Your task to perform on an android device: turn on notifications settings in the gmail app Image 0: 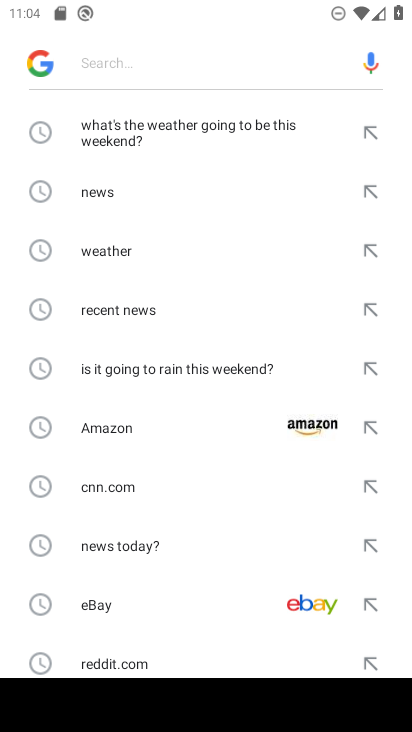
Step 0: press home button
Your task to perform on an android device: turn on notifications settings in the gmail app Image 1: 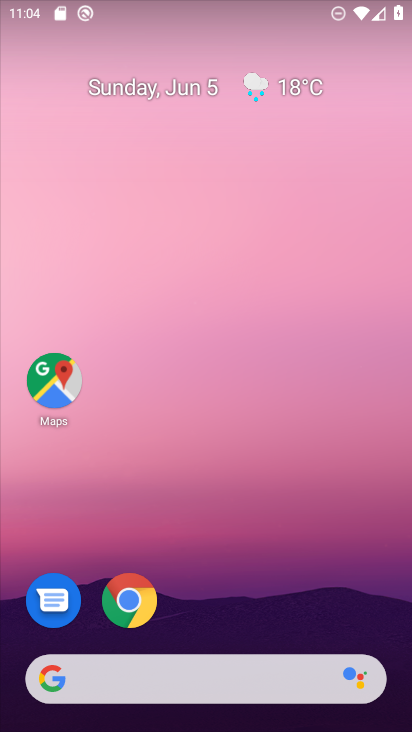
Step 1: drag from (302, 578) to (317, 156)
Your task to perform on an android device: turn on notifications settings in the gmail app Image 2: 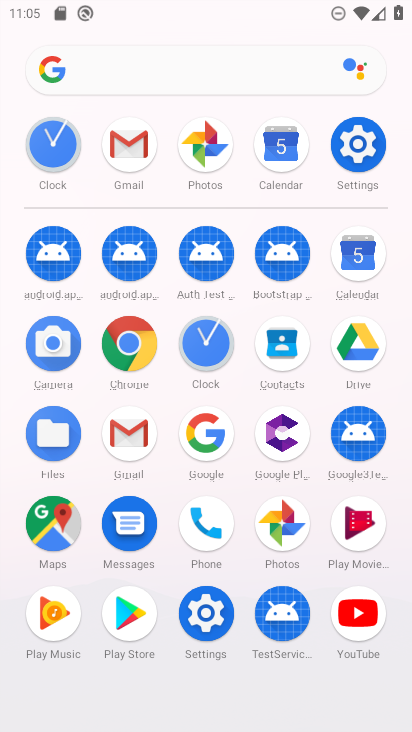
Step 2: click (129, 147)
Your task to perform on an android device: turn on notifications settings in the gmail app Image 3: 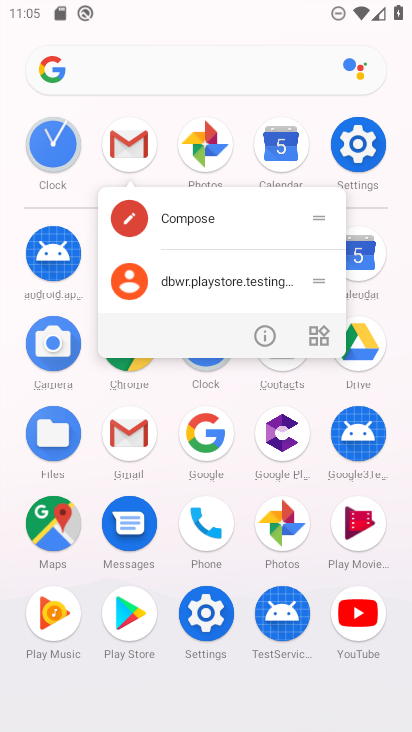
Step 3: click (276, 329)
Your task to perform on an android device: turn on notifications settings in the gmail app Image 4: 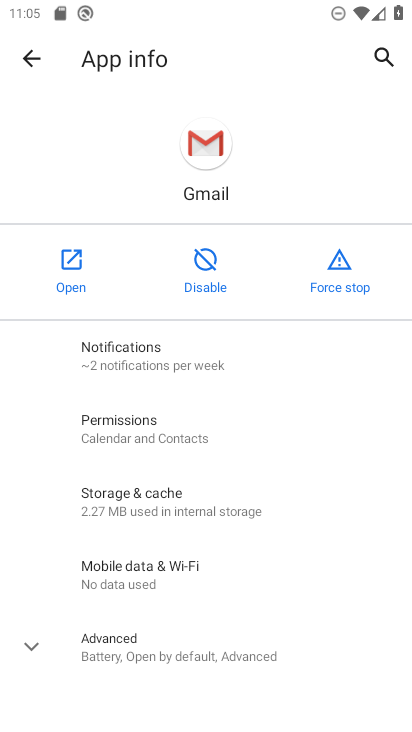
Step 4: click (153, 380)
Your task to perform on an android device: turn on notifications settings in the gmail app Image 5: 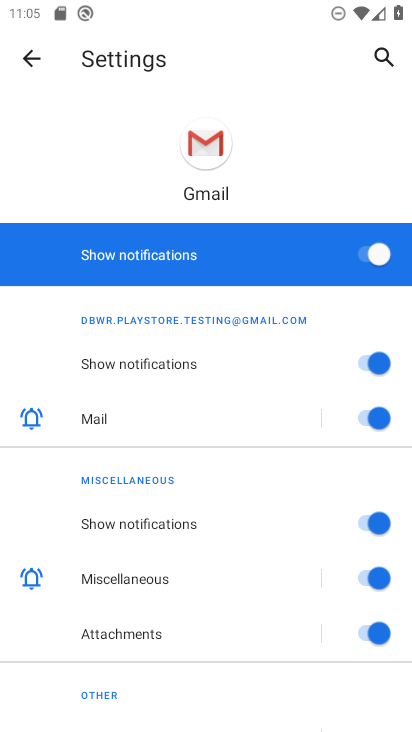
Step 5: task complete